Your task to perform on an android device: Check the weather Image 0: 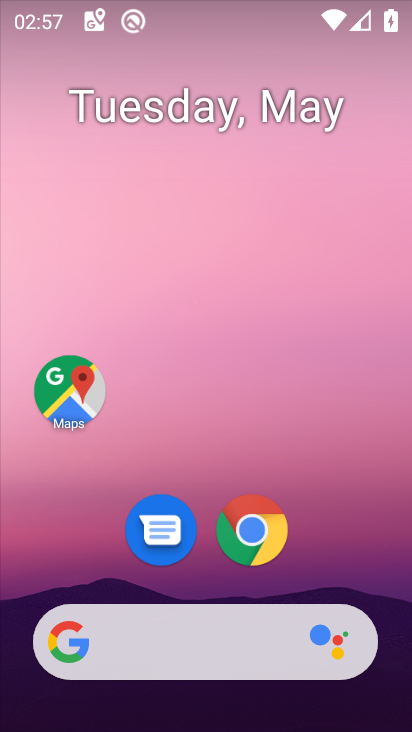
Step 0: click (144, 657)
Your task to perform on an android device: Check the weather Image 1: 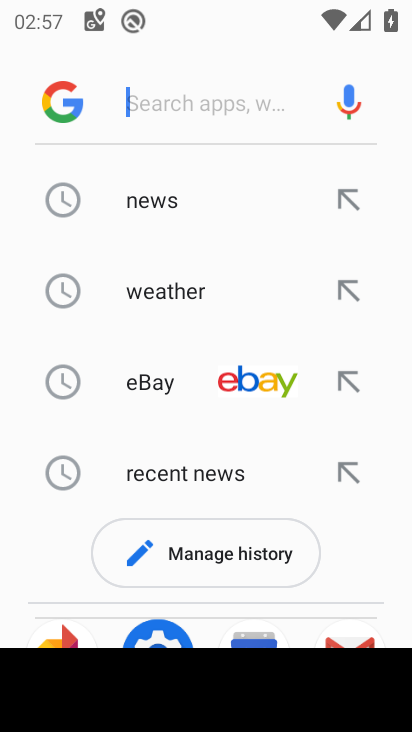
Step 1: click (101, 302)
Your task to perform on an android device: Check the weather Image 2: 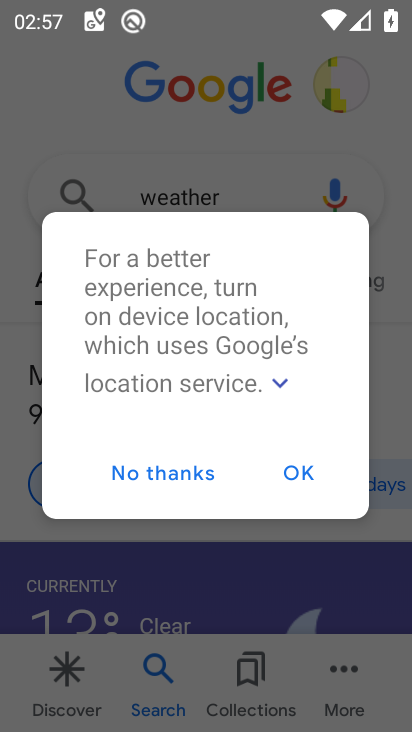
Step 2: task complete